Your task to perform on an android device: Open Yahoo.com Image 0: 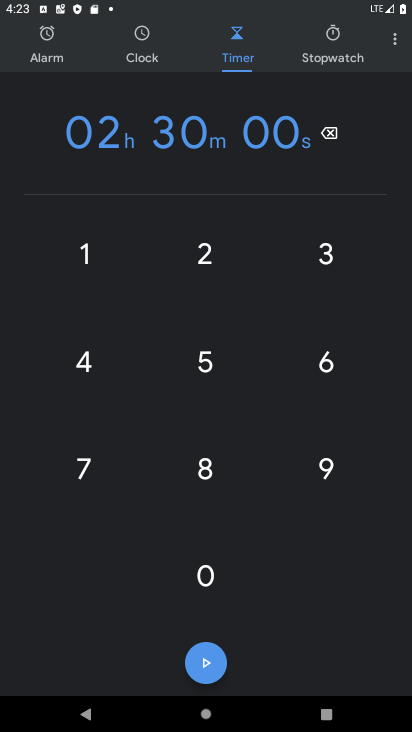
Step 0: press home button
Your task to perform on an android device: Open Yahoo.com Image 1: 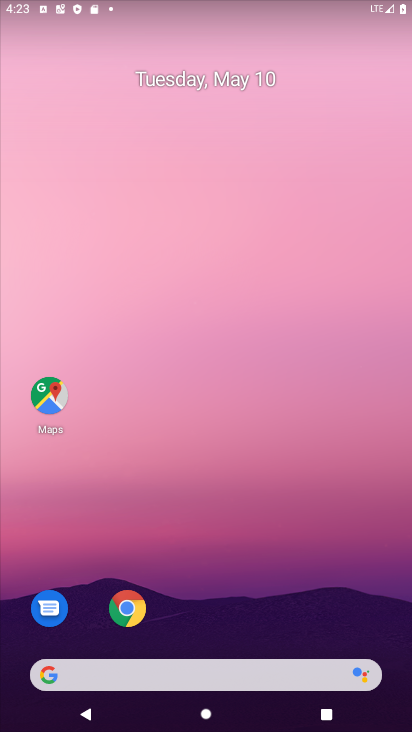
Step 1: click (124, 612)
Your task to perform on an android device: Open Yahoo.com Image 2: 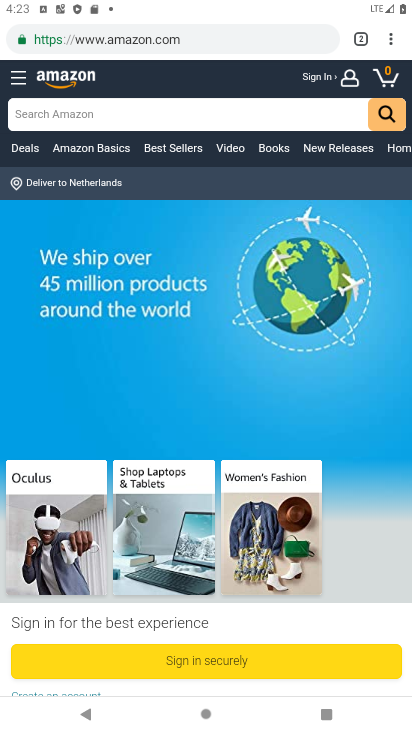
Step 2: click (104, 32)
Your task to perform on an android device: Open Yahoo.com Image 3: 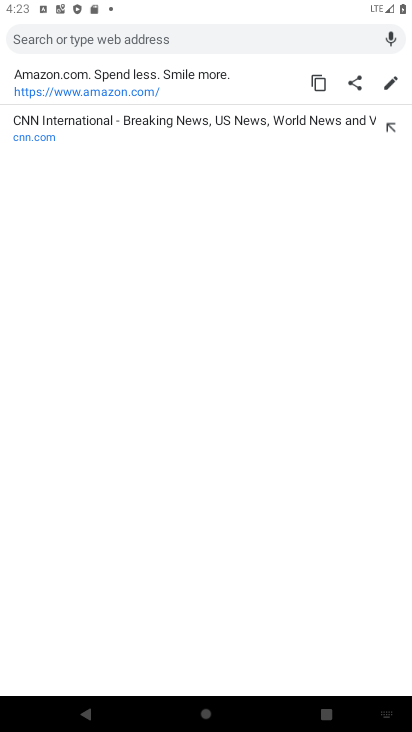
Step 3: type "yahoo"
Your task to perform on an android device: Open Yahoo.com Image 4: 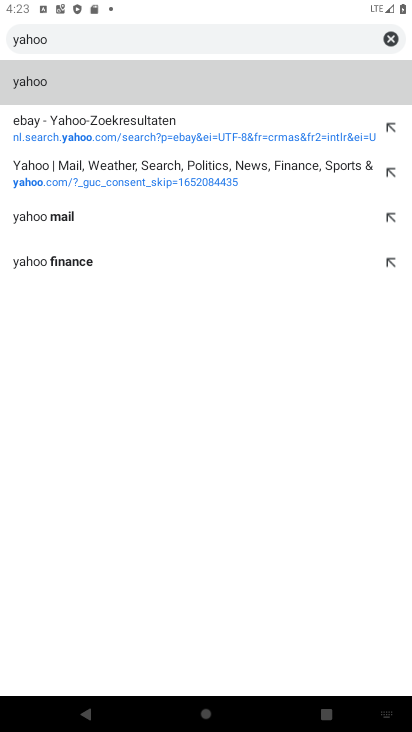
Step 4: click (52, 86)
Your task to perform on an android device: Open Yahoo.com Image 5: 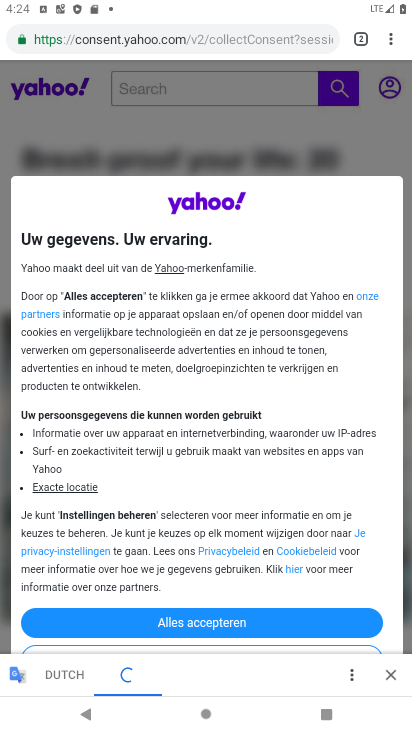
Step 5: task complete